Your task to perform on an android device: check android version Image 0: 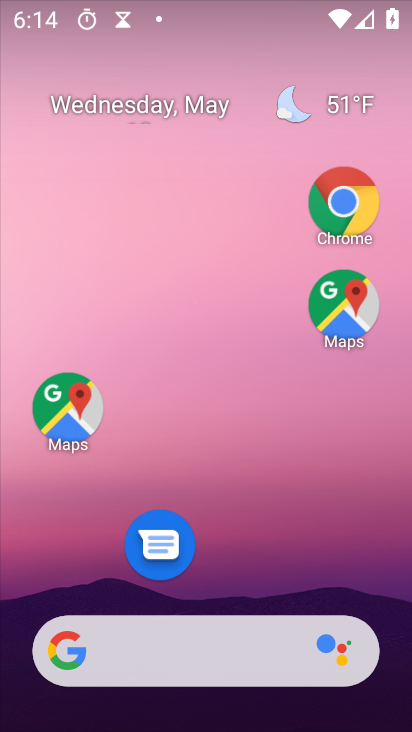
Step 0: drag from (256, 372) to (252, 145)
Your task to perform on an android device: check android version Image 1: 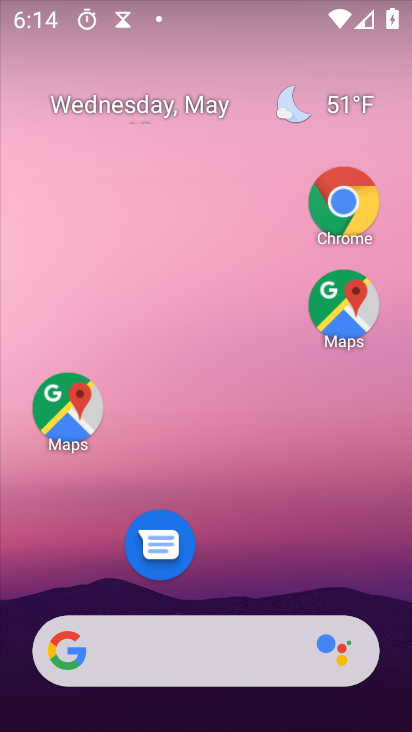
Step 1: drag from (225, 564) to (157, 114)
Your task to perform on an android device: check android version Image 2: 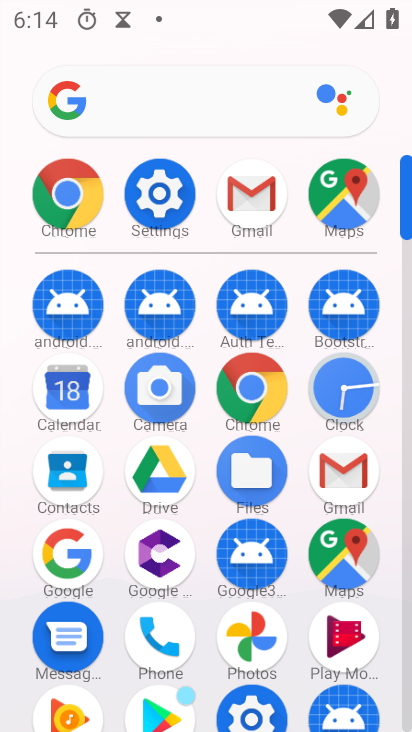
Step 2: click (156, 192)
Your task to perform on an android device: check android version Image 3: 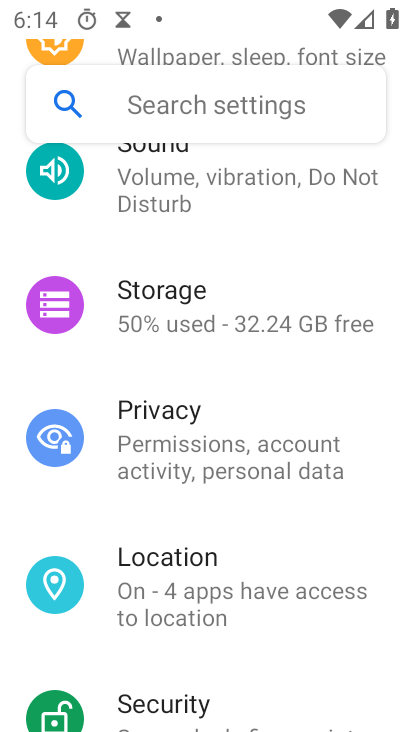
Step 3: drag from (173, 363) to (176, 130)
Your task to perform on an android device: check android version Image 4: 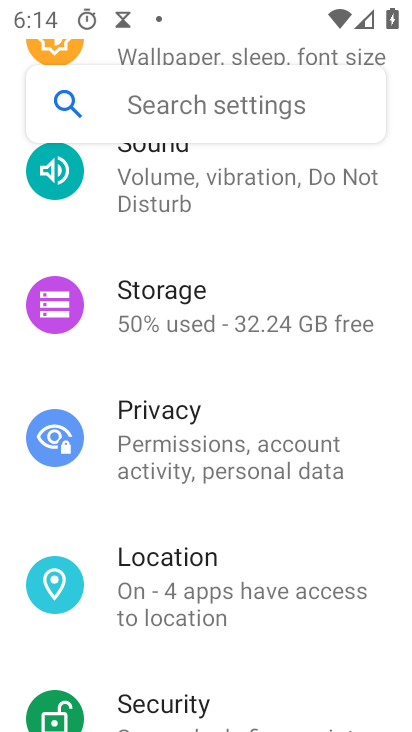
Step 4: drag from (186, 572) to (160, 199)
Your task to perform on an android device: check android version Image 5: 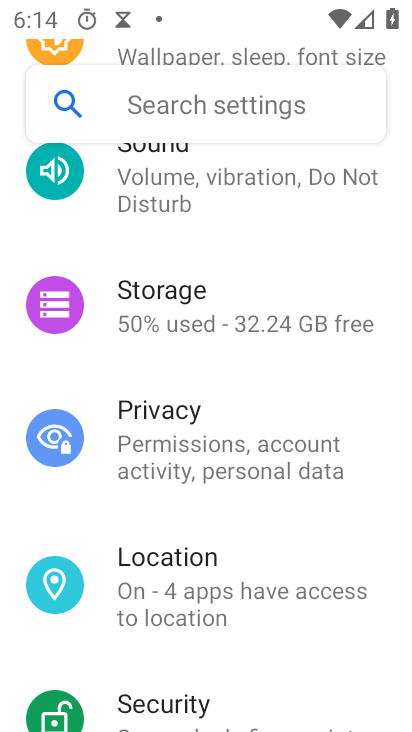
Step 5: click (234, 145)
Your task to perform on an android device: check android version Image 6: 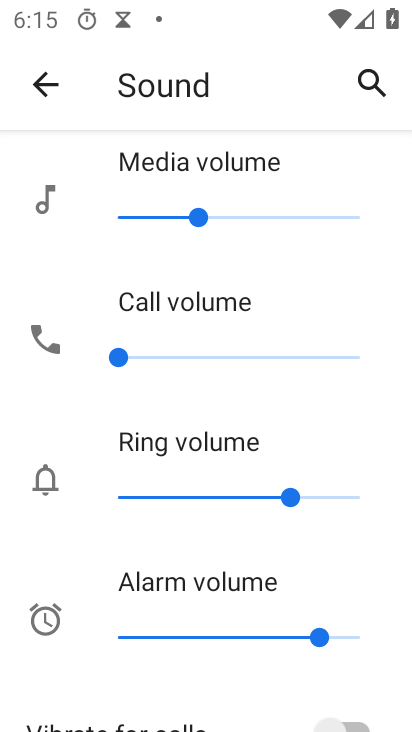
Step 6: click (39, 64)
Your task to perform on an android device: check android version Image 7: 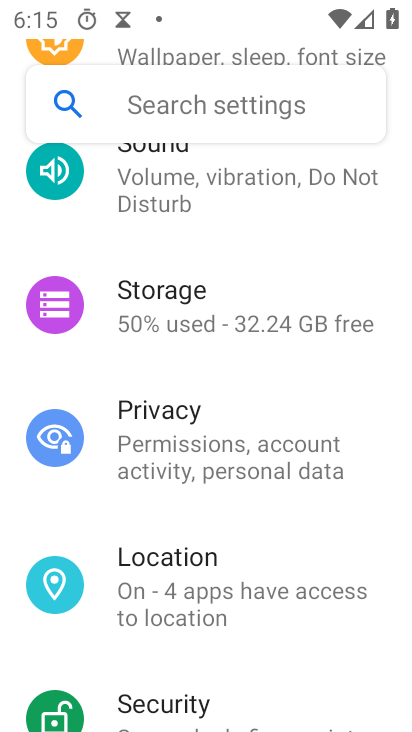
Step 7: drag from (175, 289) to (175, 126)
Your task to perform on an android device: check android version Image 8: 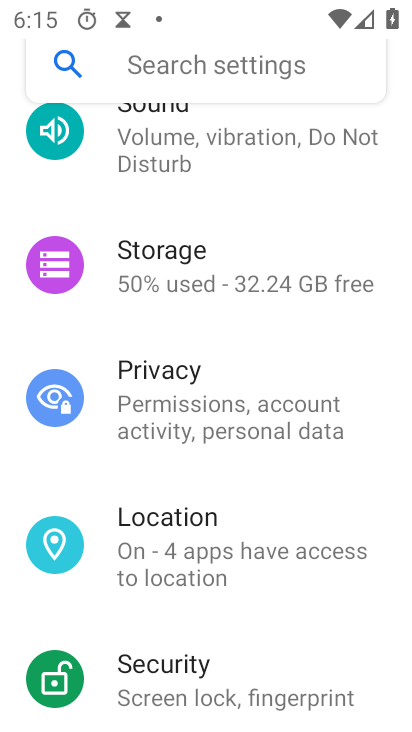
Step 8: drag from (238, 637) to (267, 319)
Your task to perform on an android device: check android version Image 9: 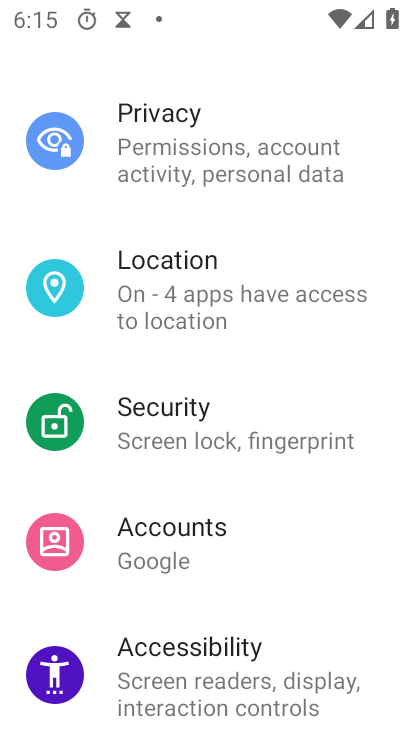
Step 9: drag from (167, 619) to (167, 218)
Your task to perform on an android device: check android version Image 10: 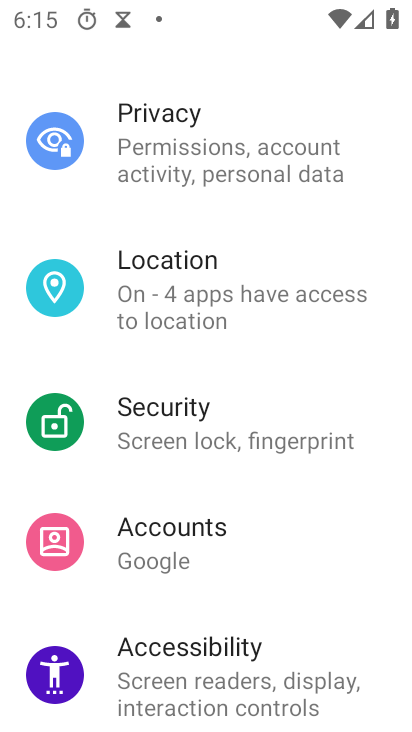
Step 10: drag from (174, 418) to (170, 231)
Your task to perform on an android device: check android version Image 11: 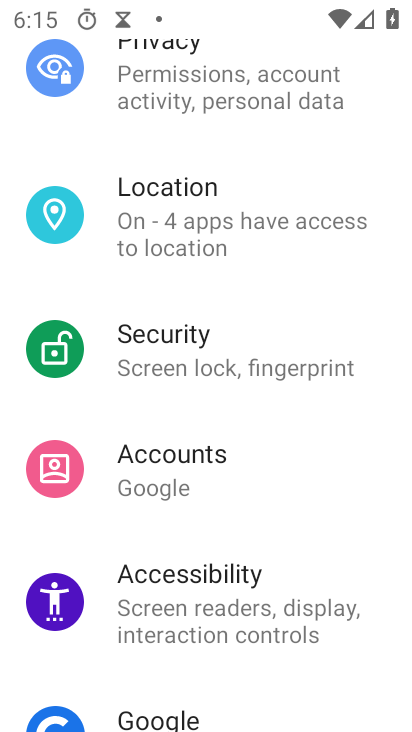
Step 11: drag from (208, 468) to (182, 117)
Your task to perform on an android device: check android version Image 12: 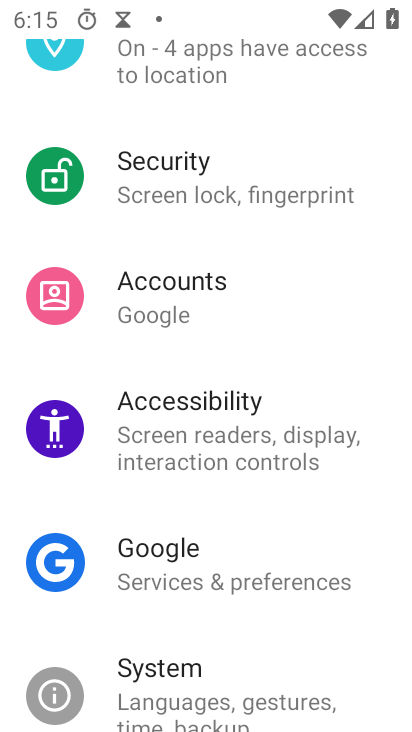
Step 12: drag from (184, 639) to (206, 215)
Your task to perform on an android device: check android version Image 13: 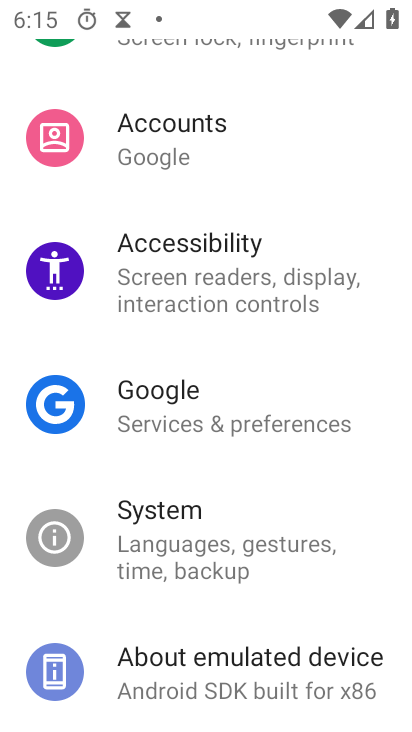
Step 13: click (139, 679)
Your task to perform on an android device: check android version Image 14: 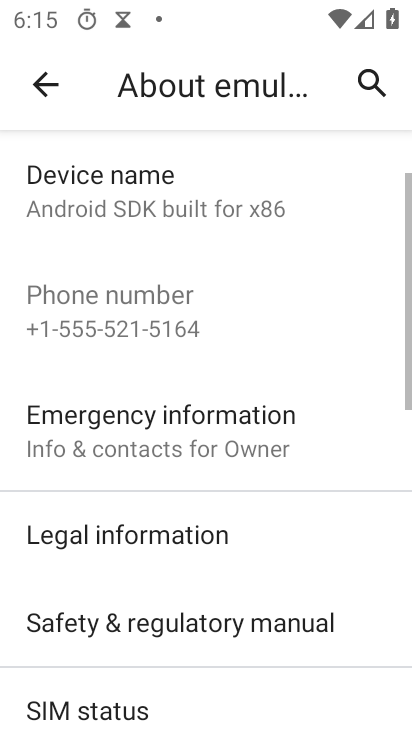
Step 14: drag from (148, 614) to (166, 202)
Your task to perform on an android device: check android version Image 15: 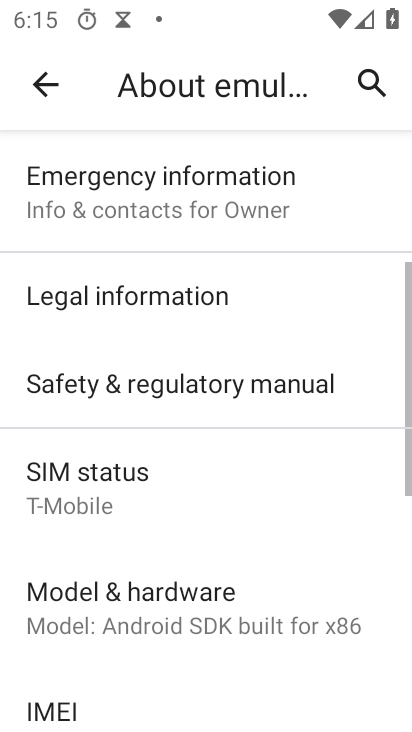
Step 15: drag from (125, 567) to (131, 340)
Your task to perform on an android device: check android version Image 16: 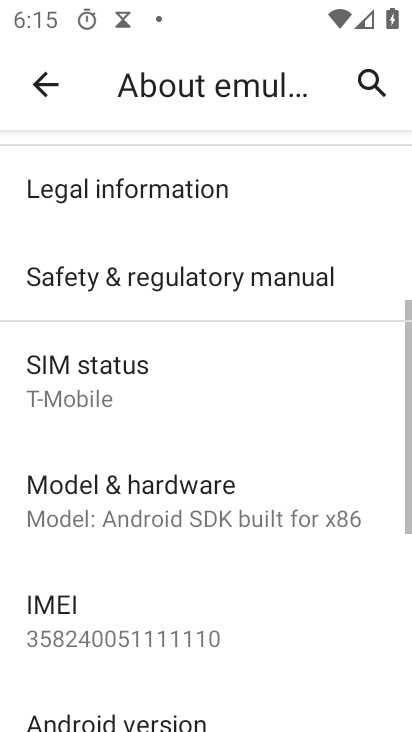
Step 16: drag from (183, 538) to (196, 208)
Your task to perform on an android device: check android version Image 17: 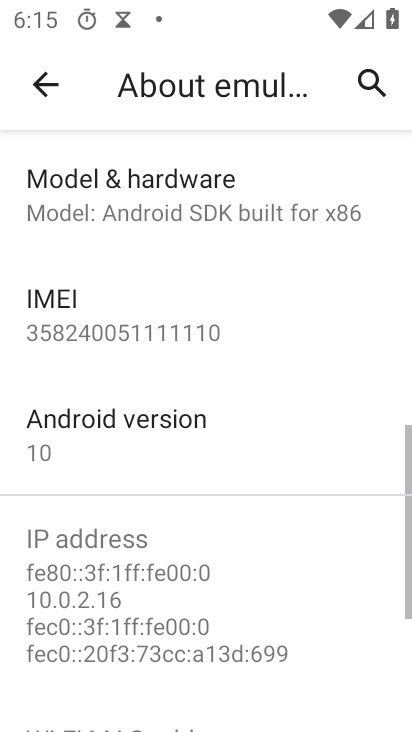
Step 17: click (88, 457)
Your task to perform on an android device: check android version Image 18: 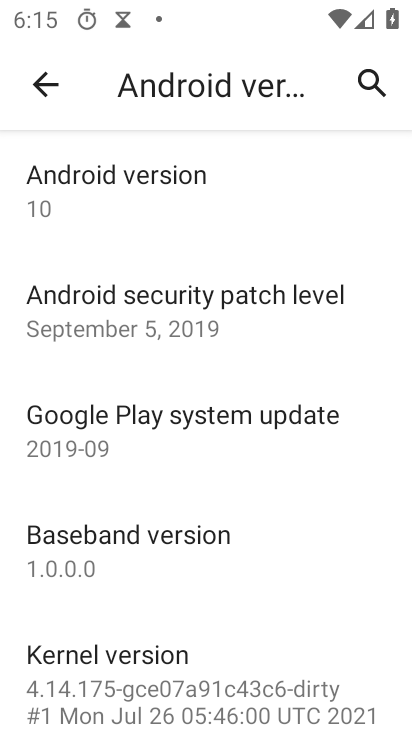
Step 18: task complete